Your task to perform on an android device: Go to privacy settings Image 0: 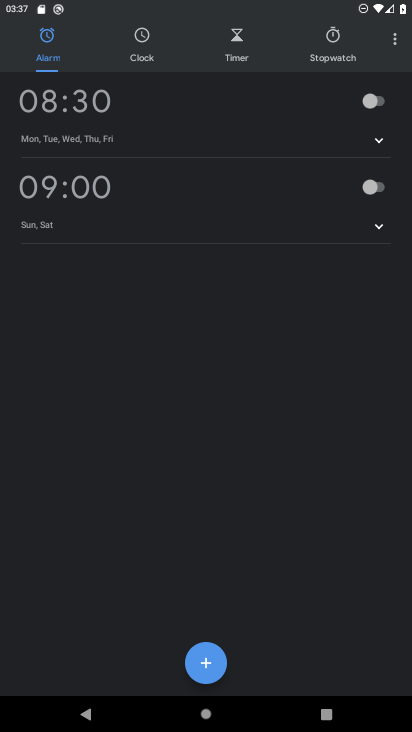
Step 0: press home button
Your task to perform on an android device: Go to privacy settings Image 1: 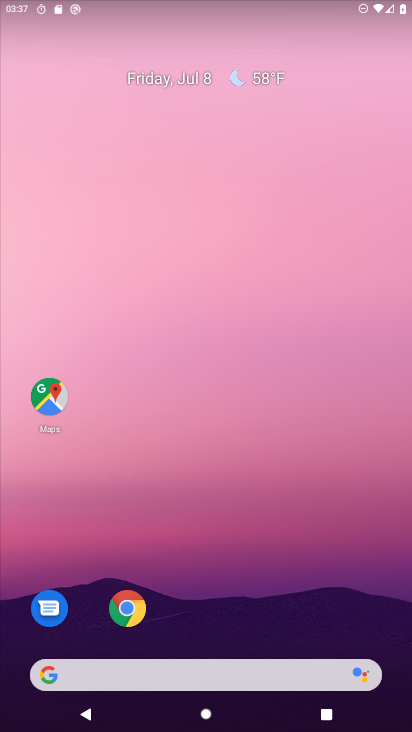
Step 1: drag from (269, 723) to (223, 71)
Your task to perform on an android device: Go to privacy settings Image 2: 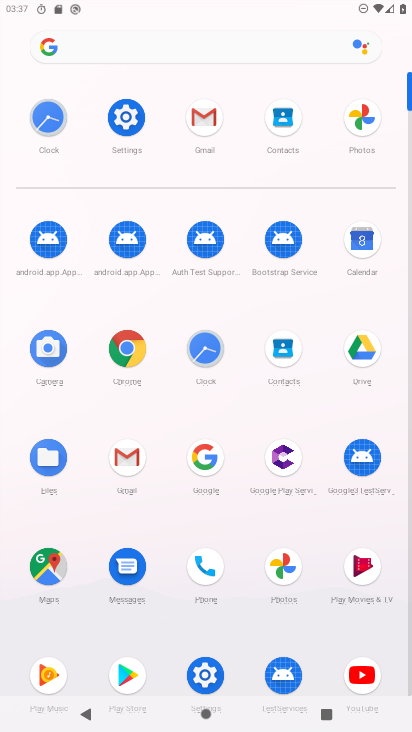
Step 2: click (130, 117)
Your task to perform on an android device: Go to privacy settings Image 3: 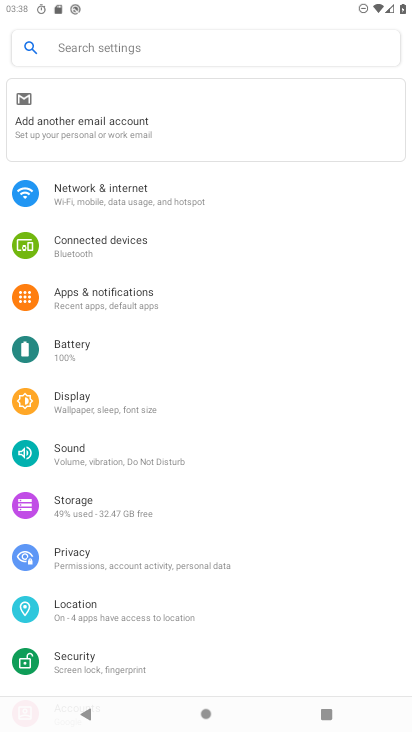
Step 3: click (80, 569)
Your task to perform on an android device: Go to privacy settings Image 4: 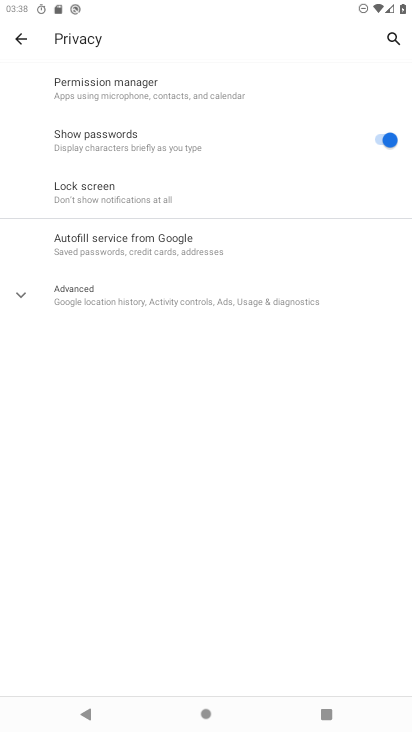
Step 4: task complete